Your task to perform on an android device: What's the weather today? Image 0: 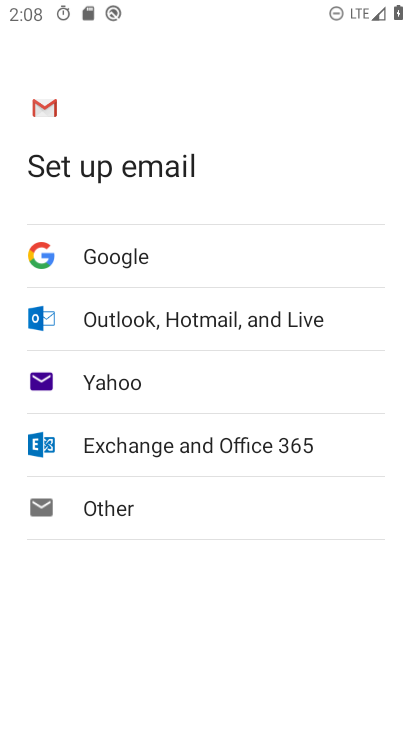
Step 0: press home button
Your task to perform on an android device: What's the weather today? Image 1: 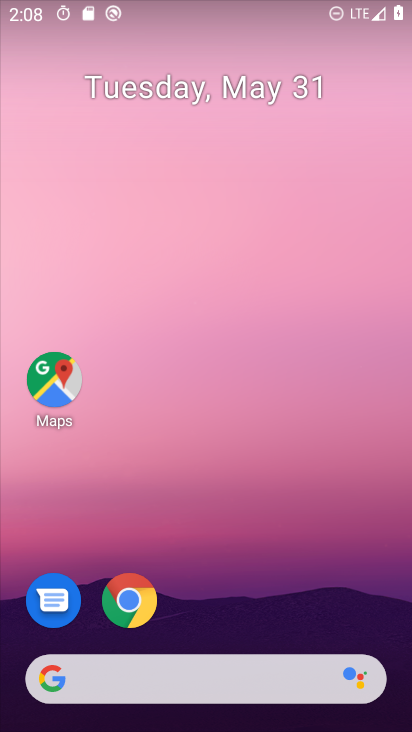
Step 1: drag from (232, 710) to (231, 136)
Your task to perform on an android device: What's the weather today? Image 2: 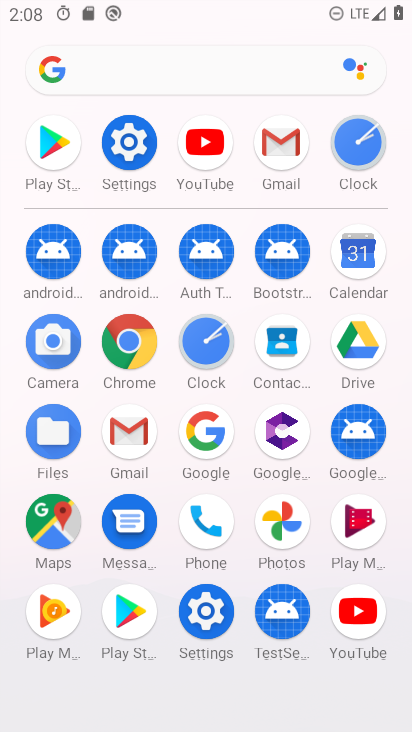
Step 2: click (201, 431)
Your task to perform on an android device: What's the weather today? Image 3: 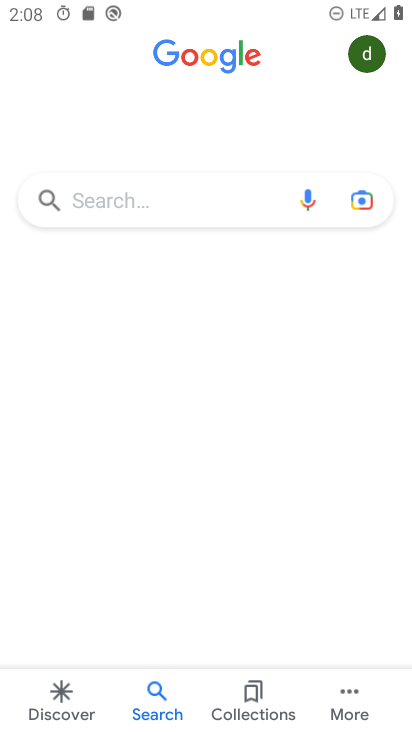
Step 3: click (185, 194)
Your task to perform on an android device: What's the weather today? Image 4: 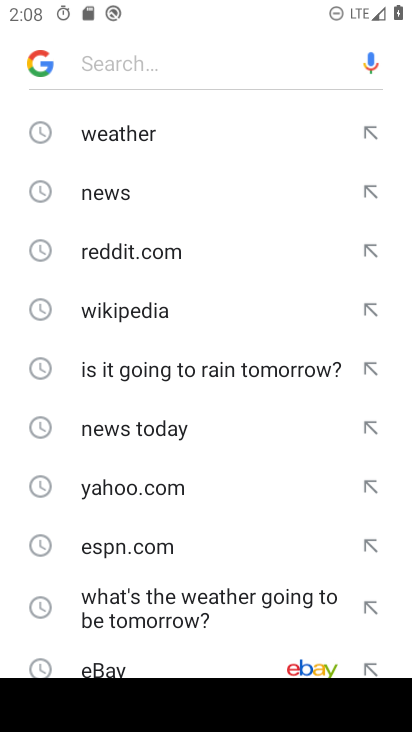
Step 4: click (116, 124)
Your task to perform on an android device: What's the weather today? Image 5: 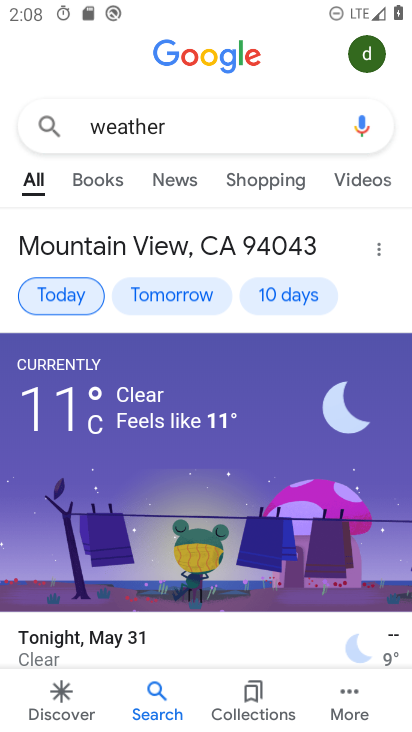
Step 5: click (69, 302)
Your task to perform on an android device: What's the weather today? Image 6: 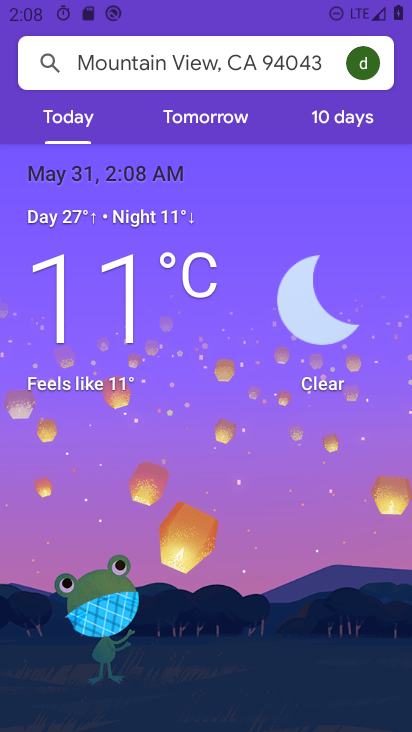
Step 6: task complete